Your task to perform on an android device: empty trash in google photos Image 0: 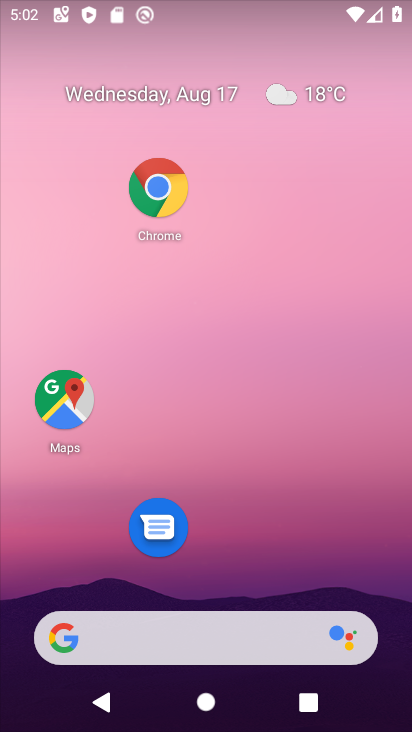
Step 0: drag from (223, 576) to (222, 108)
Your task to perform on an android device: empty trash in google photos Image 1: 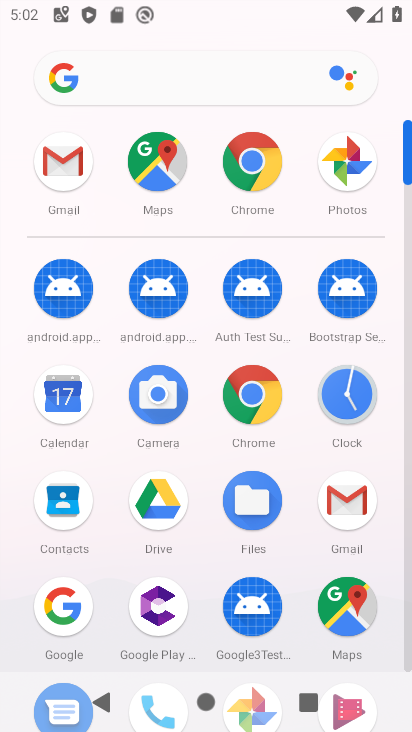
Step 1: click (339, 182)
Your task to perform on an android device: empty trash in google photos Image 2: 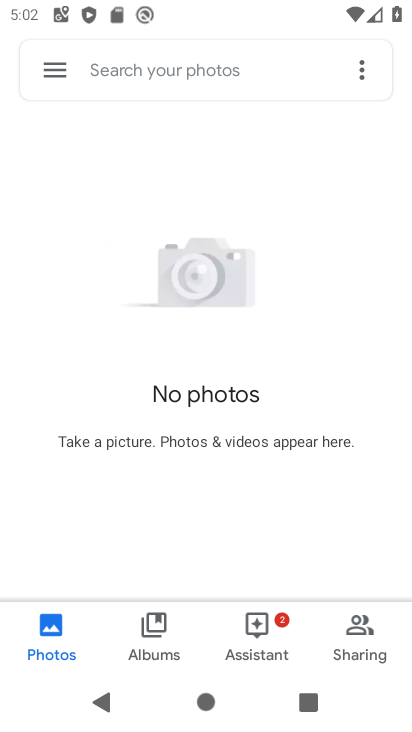
Step 2: click (67, 70)
Your task to perform on an android device: empty trash in google photos Image 3: 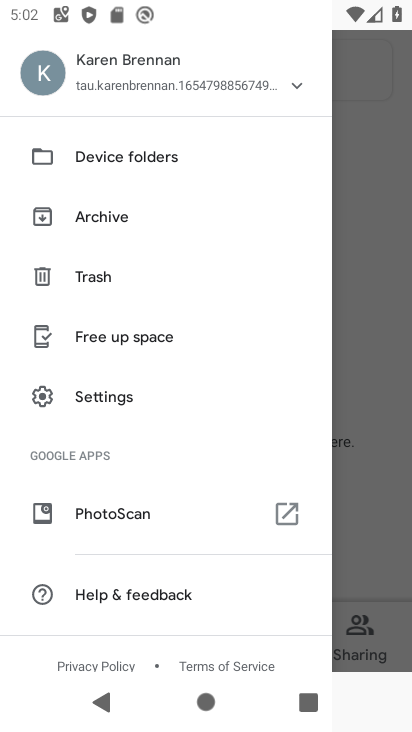
Step 3: click (124, 272)
Your task to perform on an android device: empty trash in google photos Image 4: 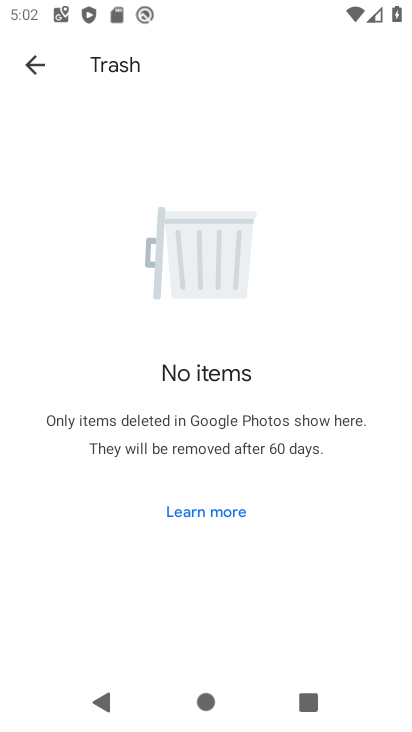
Step 4: task complete